Your task to perform on an android device: turn on airplane mode Image 0: 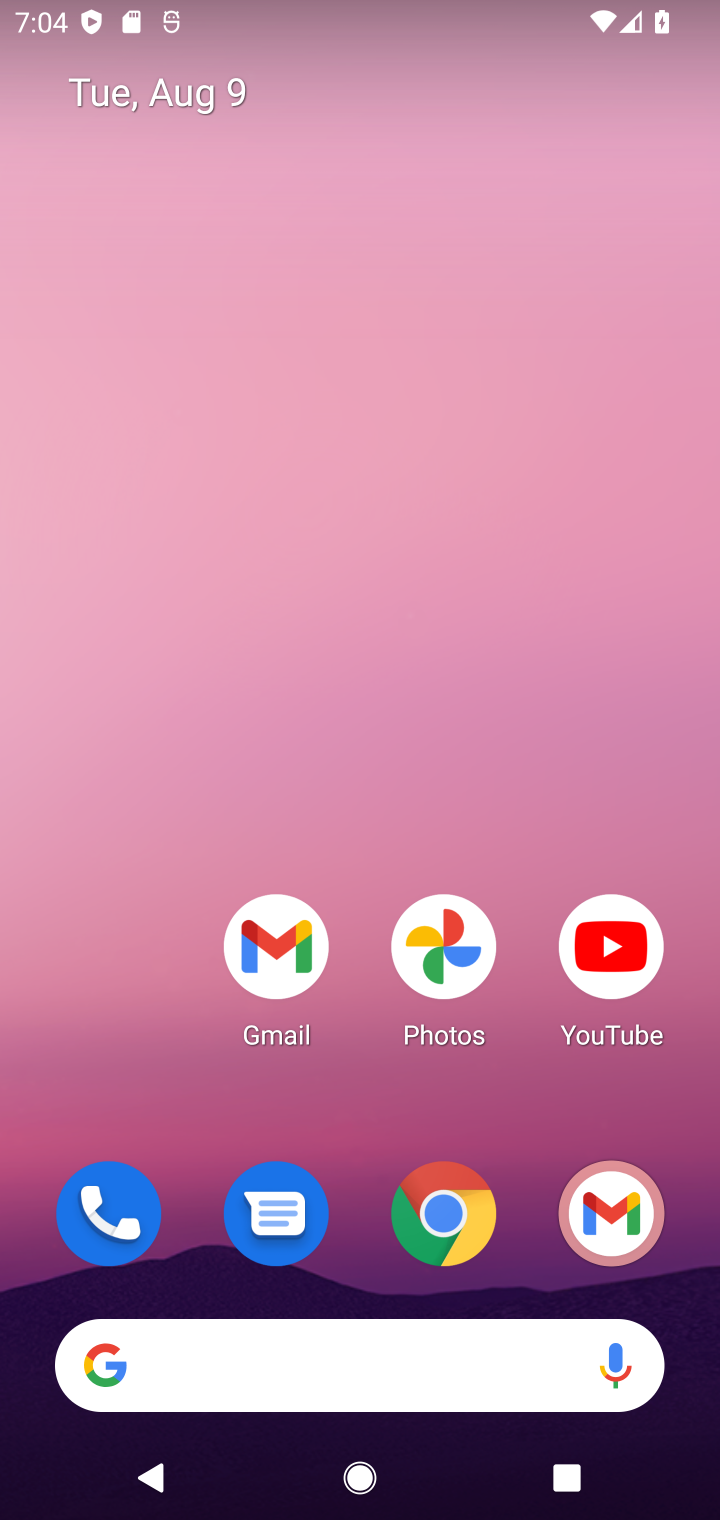
Step 0: drag from (345, 1295) to (232, 24)
Your task to perform on an android device: turn on airplane mode Image 1: 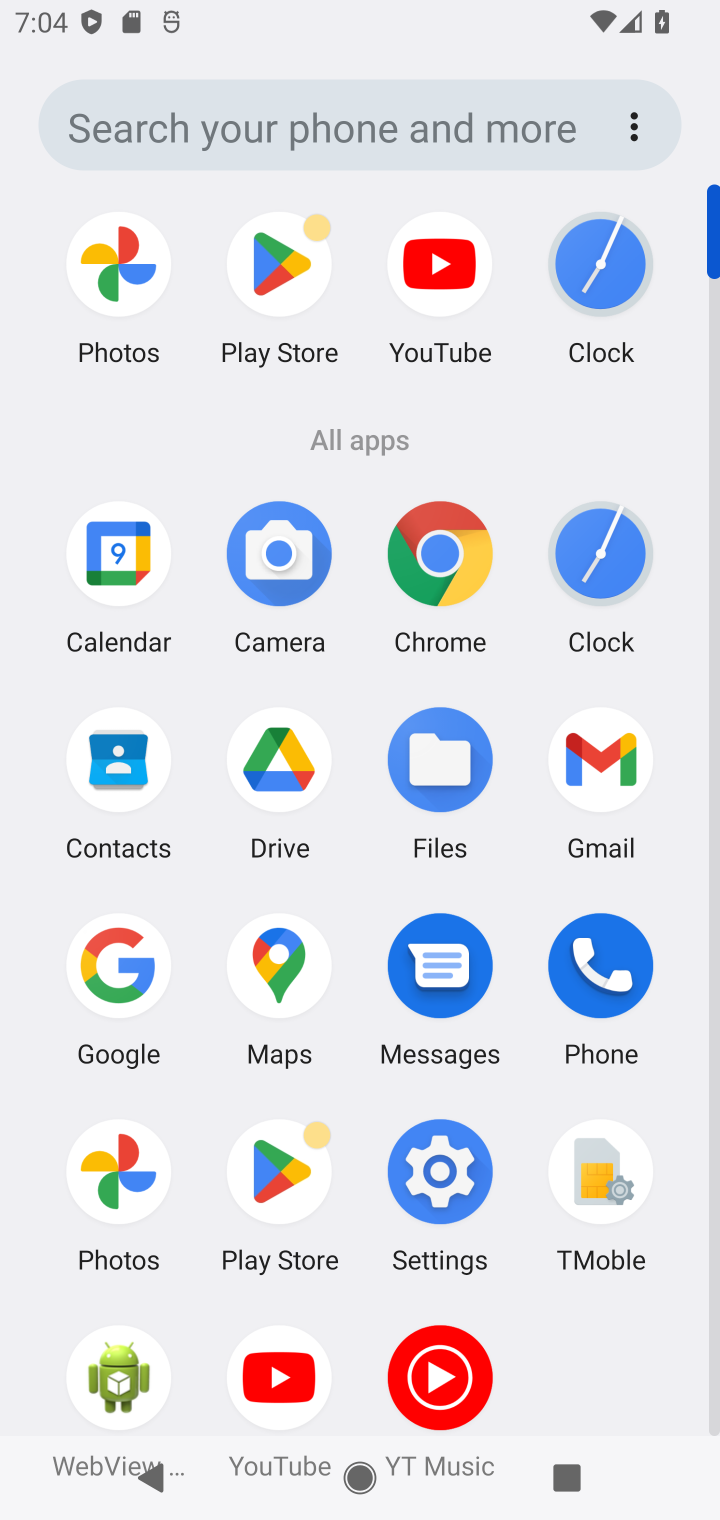
Step 1: click (453, 1196)
Your task to perform on an android device: turn on airplane mode Image 2: 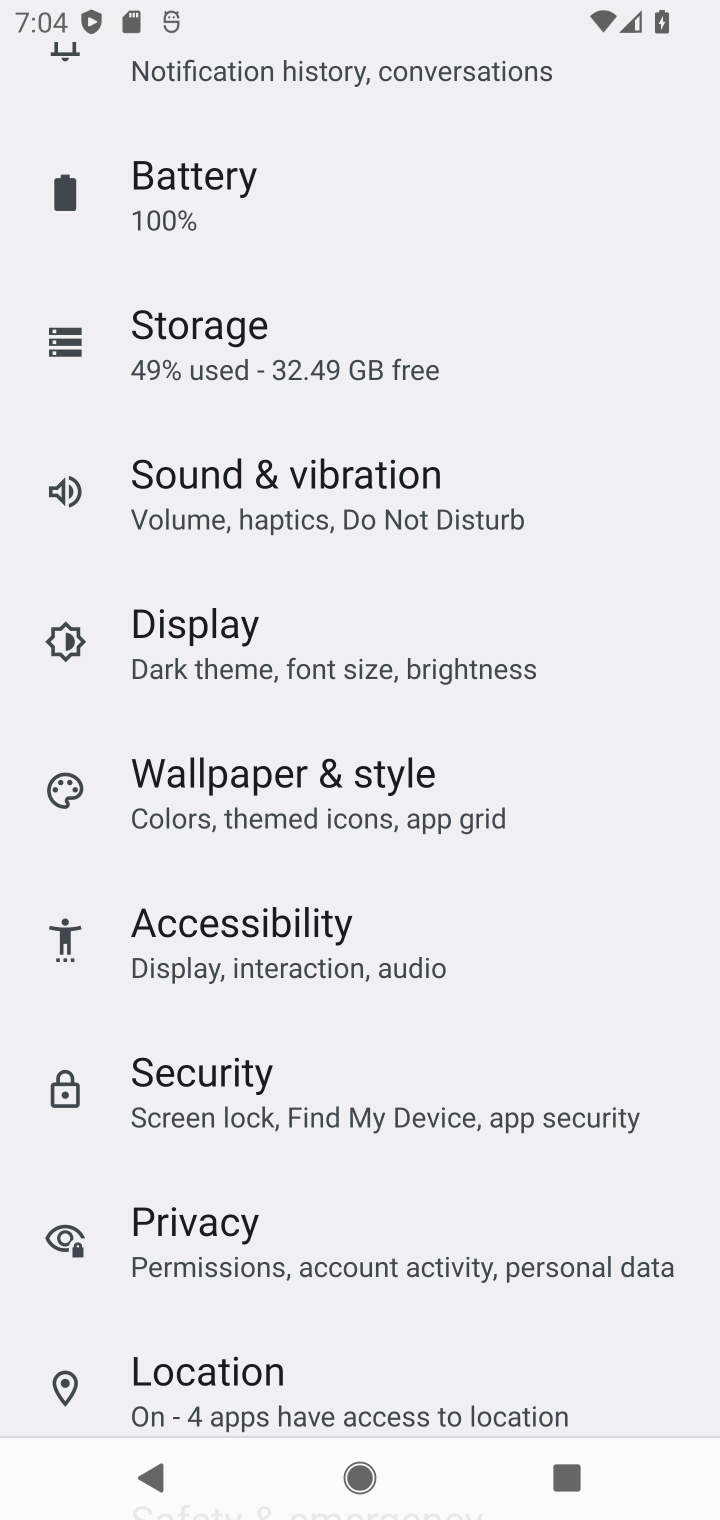
Step 2: drag from (417, 522) to (419, 1027)
Your task to perform on an android device: turn on airplane mode Image 3: 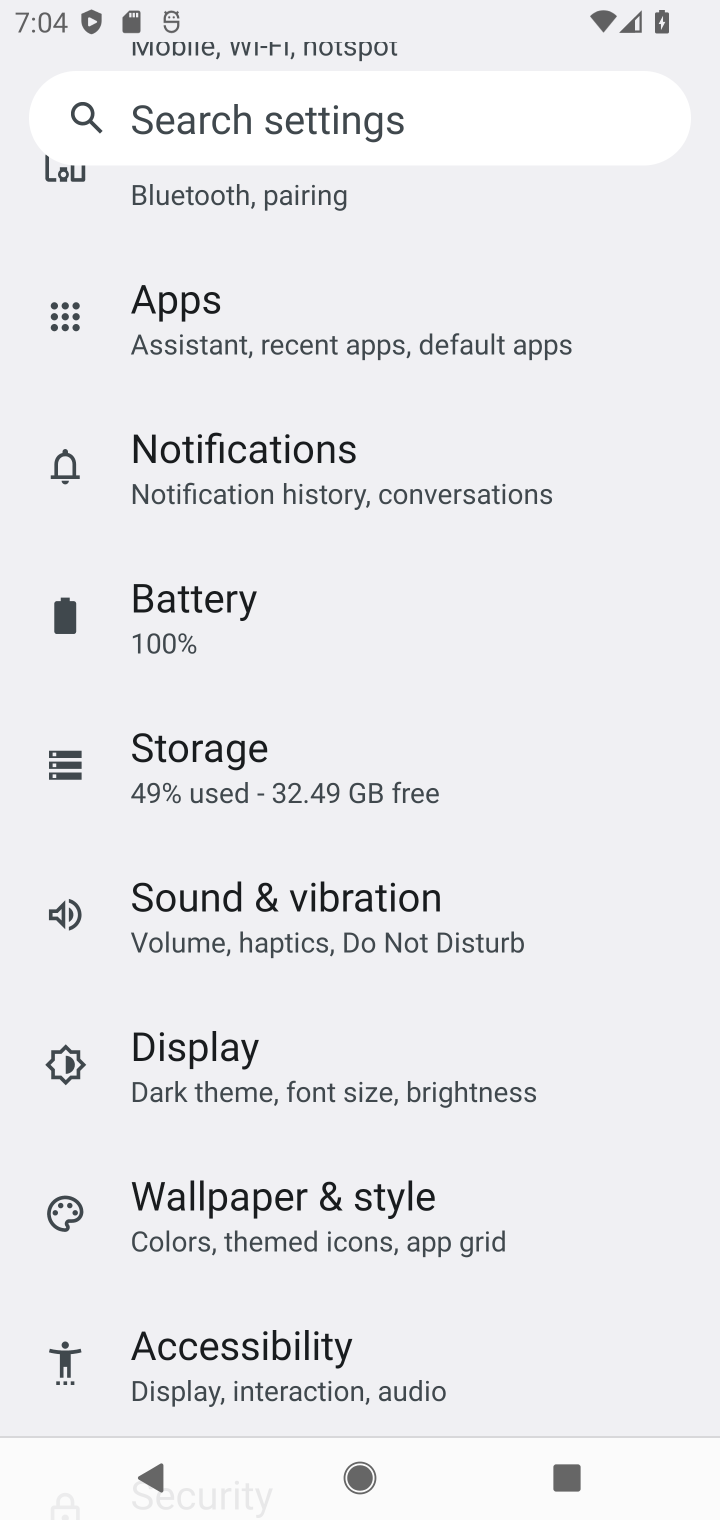
Step 3: drag from (384, 349) to (377, 955)
Your task to perform on an android device: turn on airplane mode Image 4: 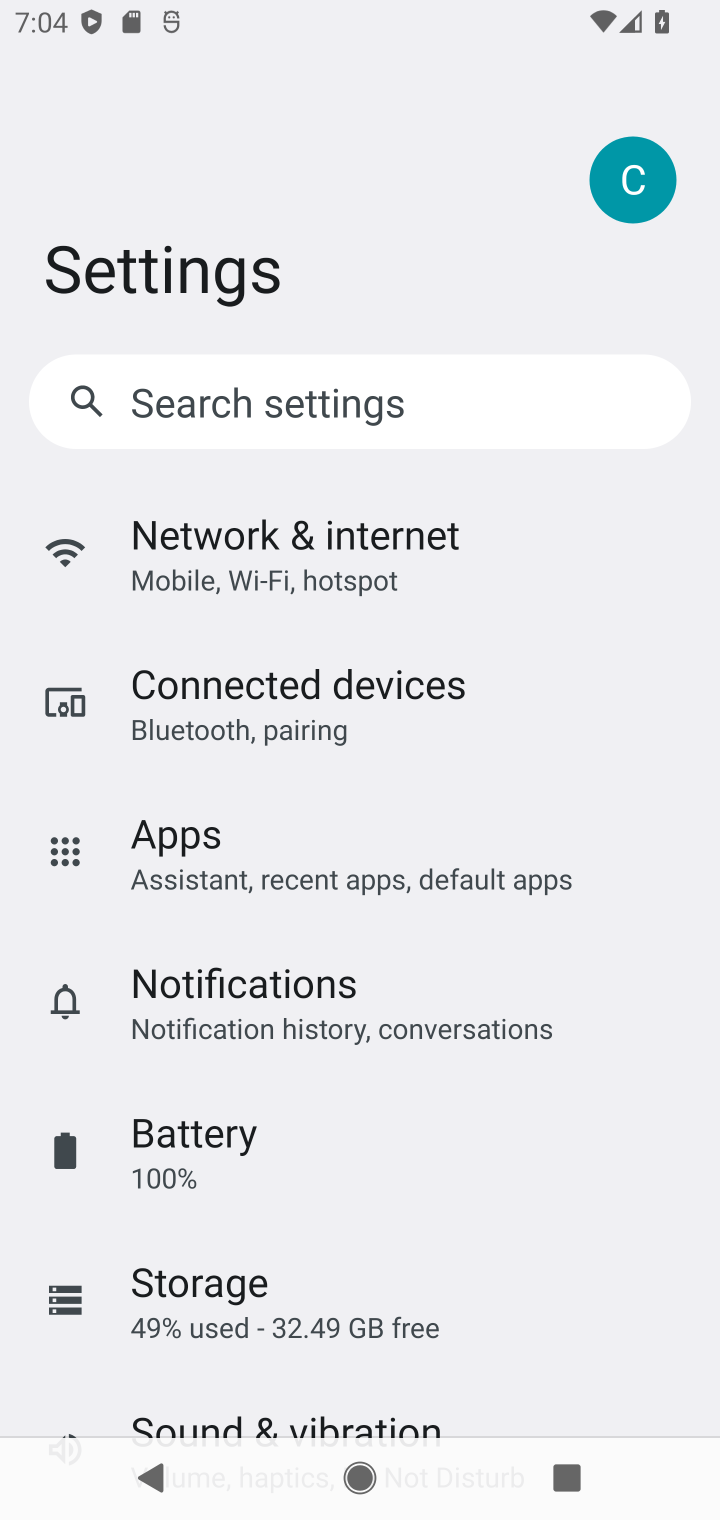
Step 4: click (319, 591)
Your task to perform on an android device: turn on airplane mode Image 5: 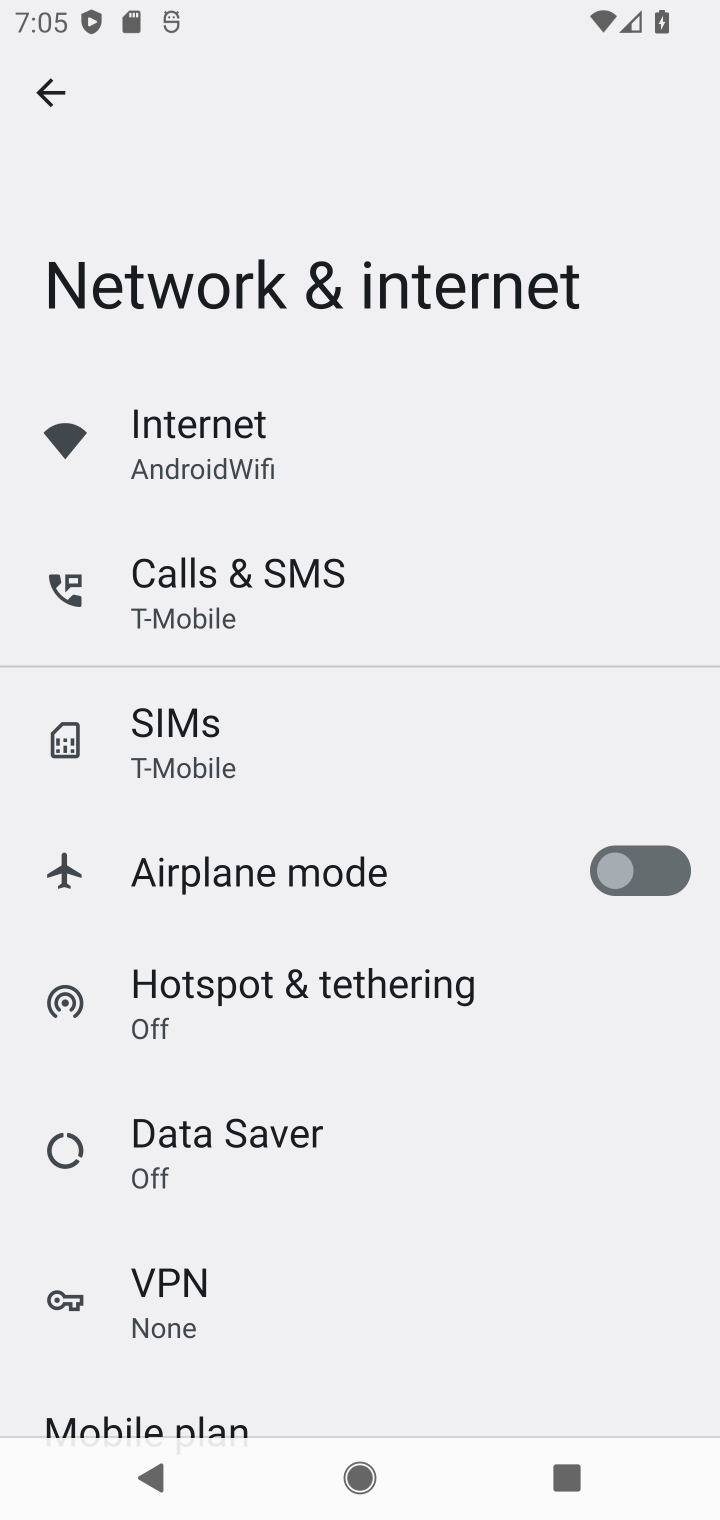
Step 5: click (616, 877)
Your task to perform on an android device: turn on airplane mode Image 6: 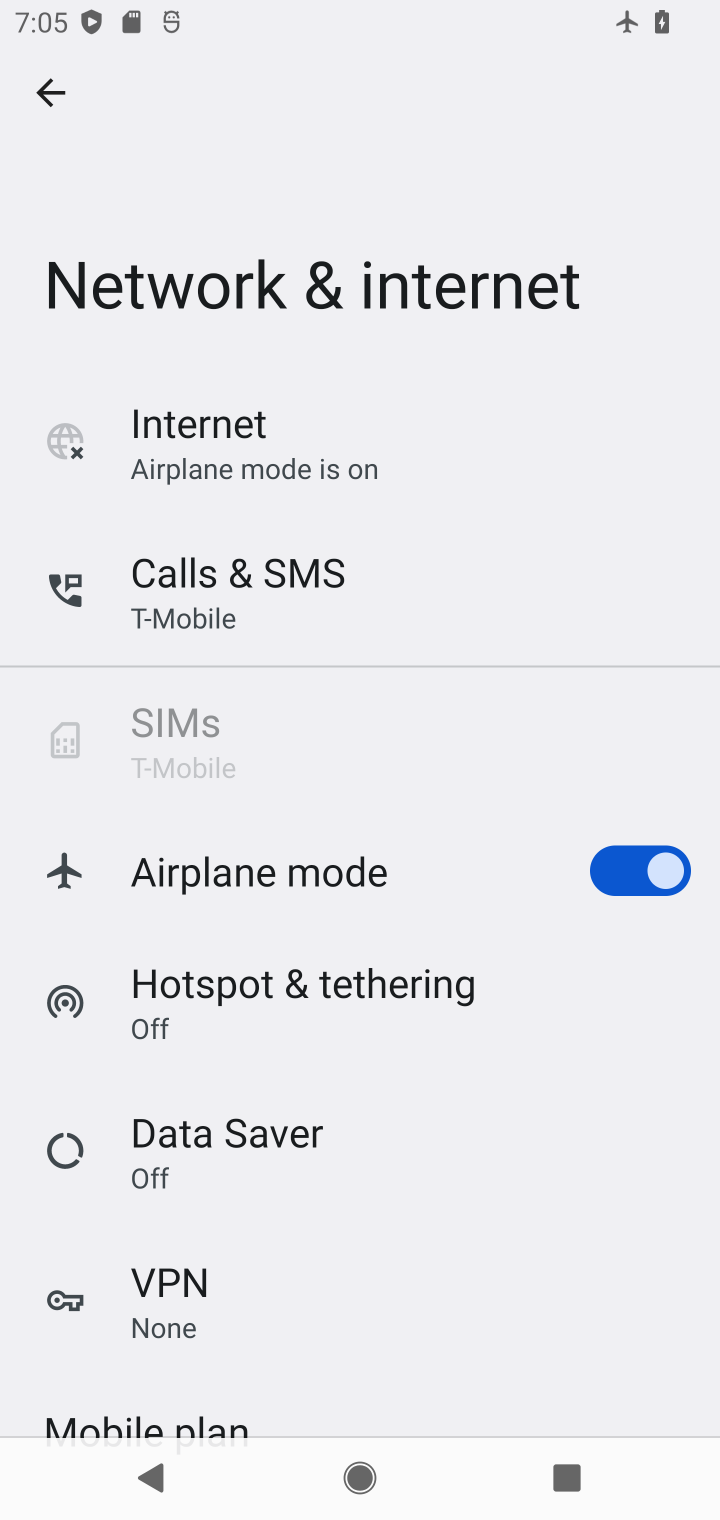
Step 6: task complete